Your task to perform on an android device: move a message to another label in the gmail app Image 0: 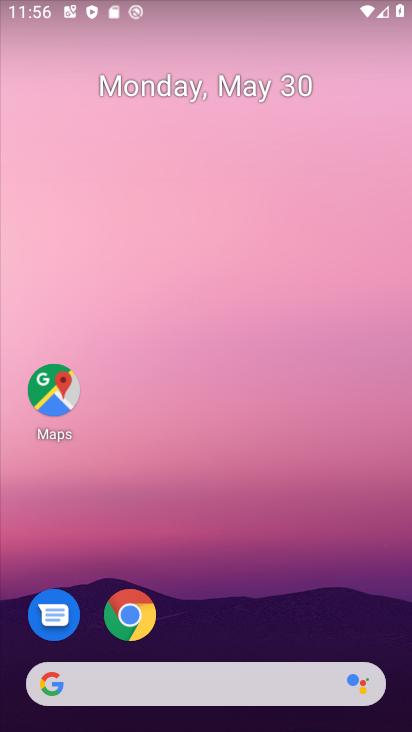
Step 0: drag from (351, 605) to (359, 88)
Your task to perform on an android device: move a message to another label in the gmail app Image 1: 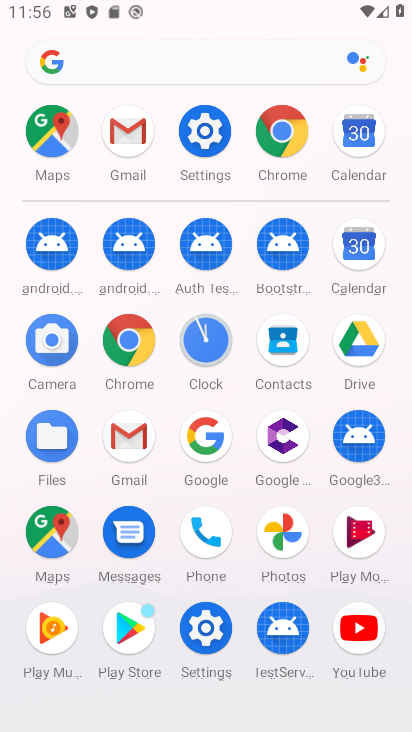
Step 1: click (139, 438)
Your task to perform on an android device: move a message to another label in the gmail app Image 2: 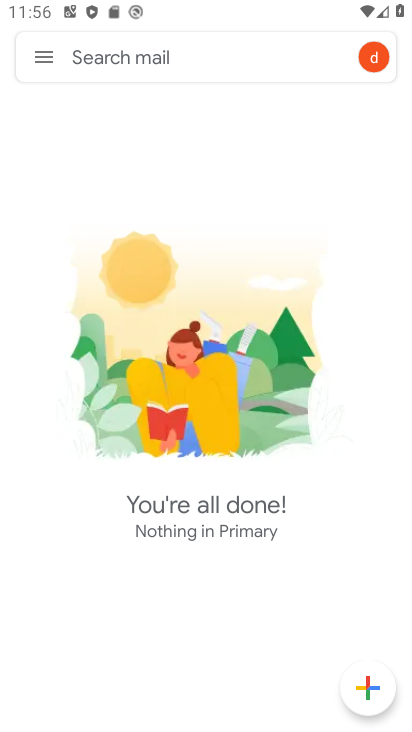
Step 2: task complete